Your task to perform on an android device: Go to wifi settings Image 0: 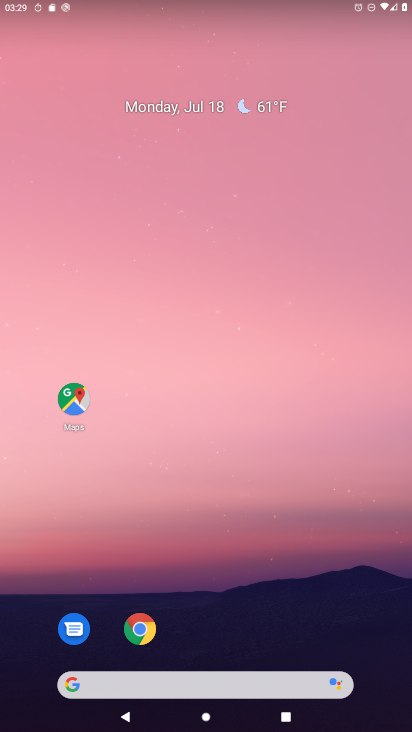
Step 0: drag from (196, 682) to (235, 111)
Your task to perform on an android device: Go to wifi settings Image 1: 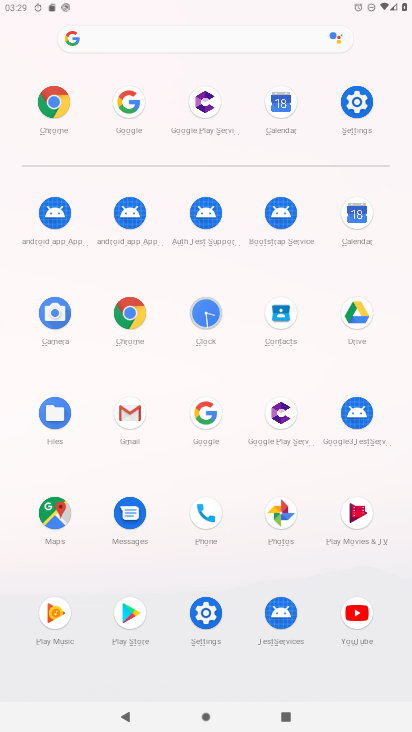
Step 1: click (357, 103)
Your task to perform on an android device: Go to wifi settings Image 2: 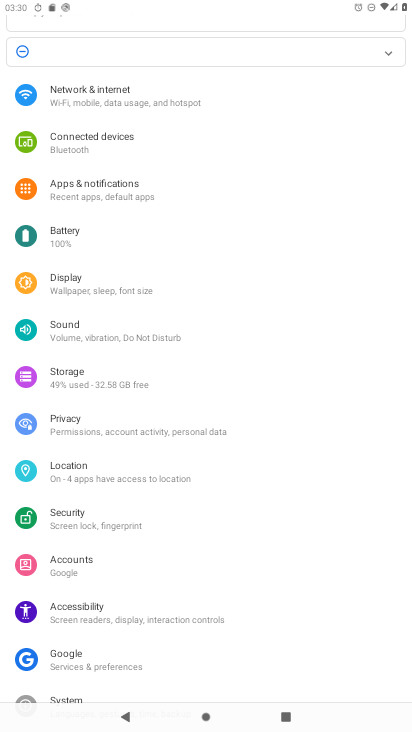
Step 2: click (156, 98)
Your task to perform on an android device: Go to wifi settings Image 3: 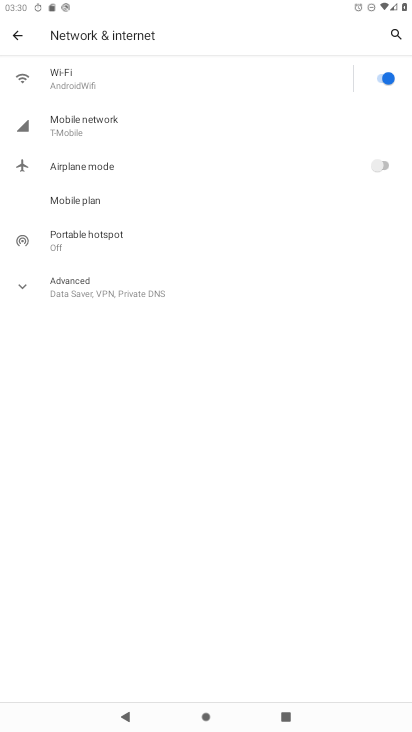
Step 3: click (79, 85)
Your task to perform on an android device: Go to wifi settings Image 4: 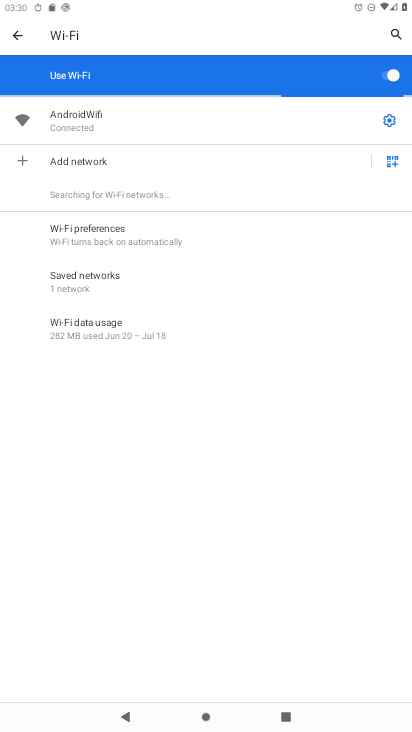
Step 4: click (389, 119)
Your task to perform on an android device: Go to wifi settings Image 5: 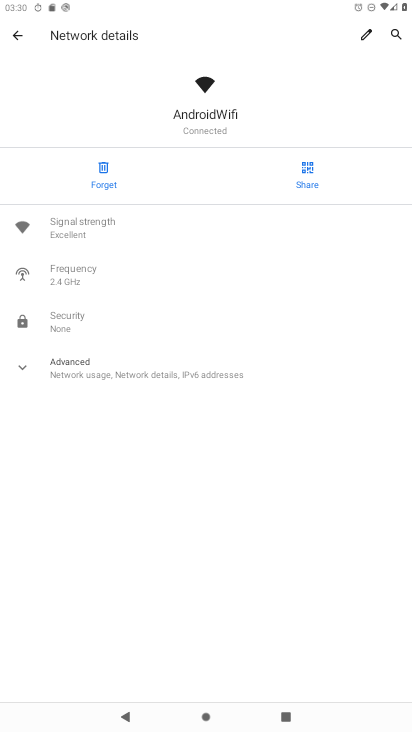
Step 5: task complete